Your task to perform on an android device: Search for sony triple a on newegg, select the first entry, add it to the cart, then select checkout. Image 0: 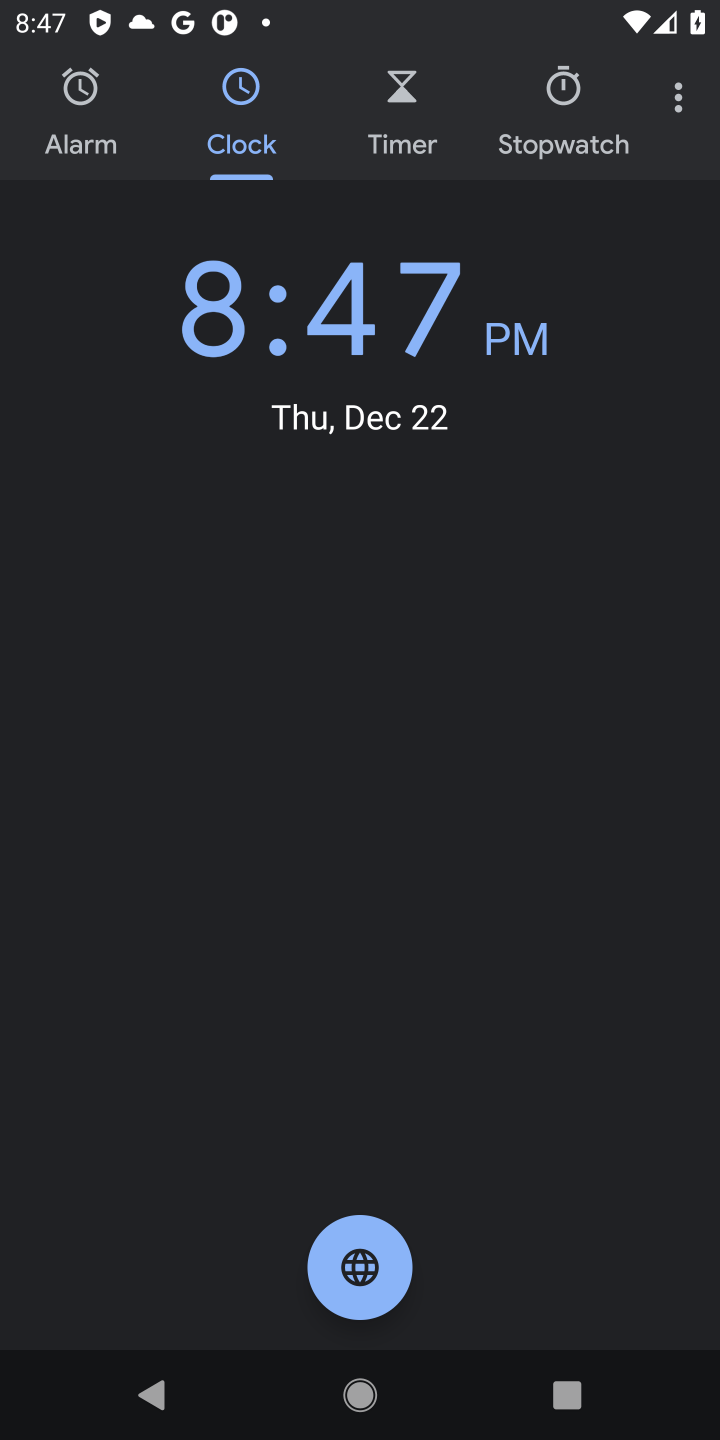
Step 0: press home button
Your task to perform on an android device: Search for sony triple a on newegg, select the first entry, add it to the cart, then select checkout. Image 1: 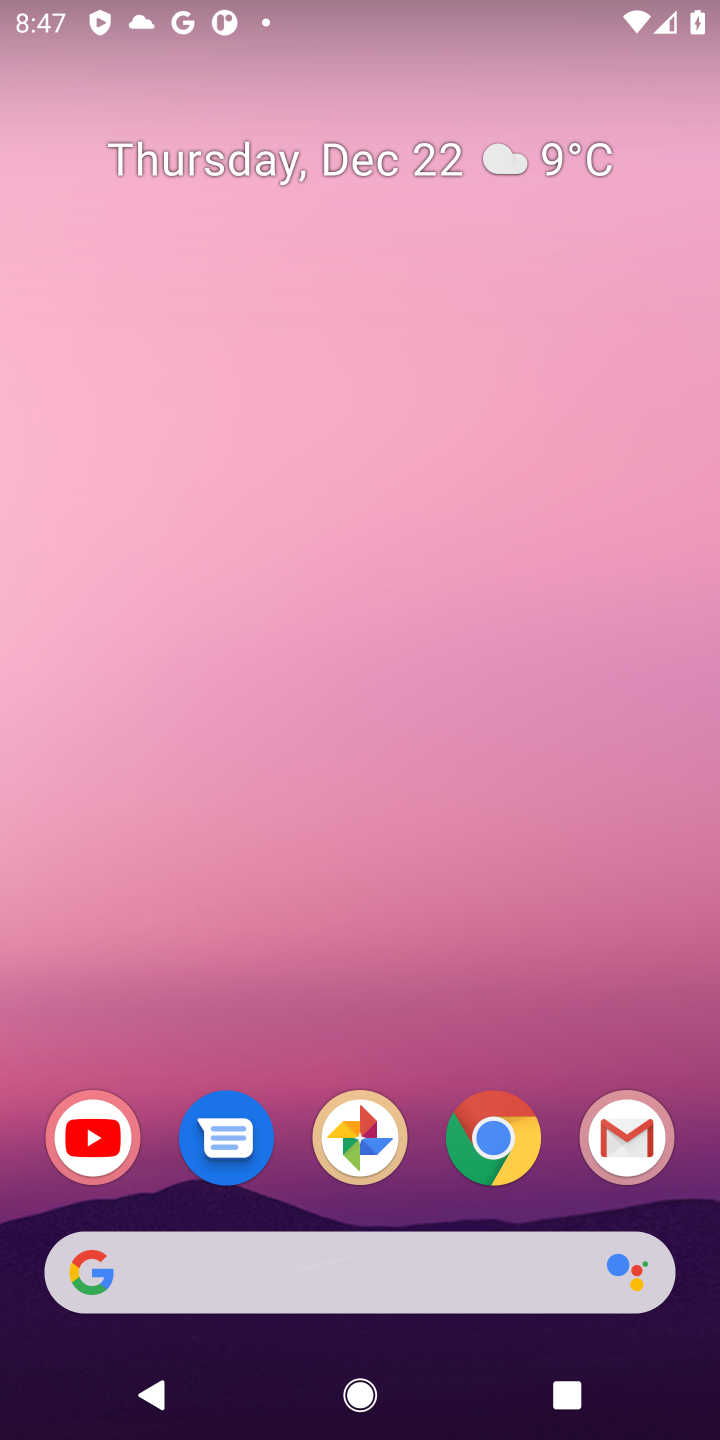
Step 1: click (478, 1134)
Your task to perform on an android device: Search for sony triple a on newegg, select the first entry, add it to the cart, then select checkout. Image 2: 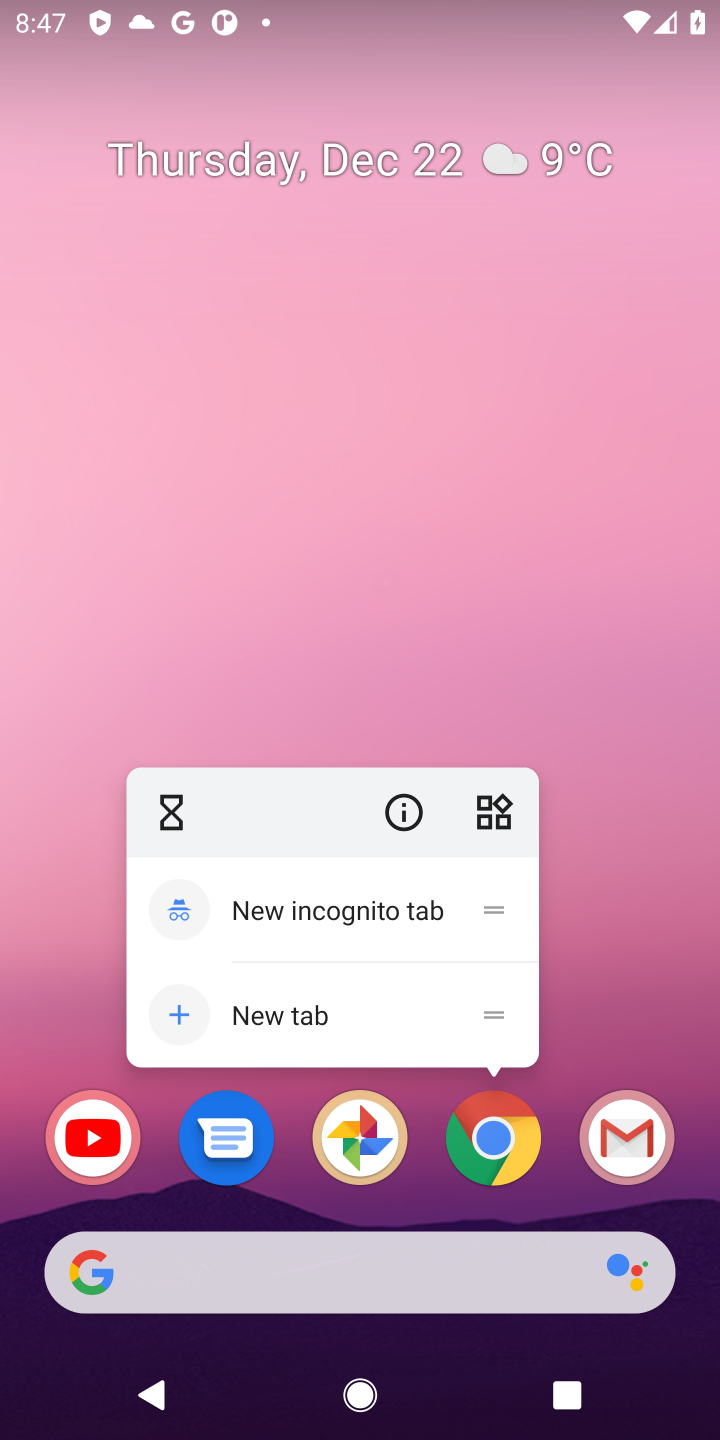
Step 2: click (503, 1177)
Your task to perform on an android device: Search for sony triple a on newegg, select the first entry, add it to the cart, then select checkout. Image 3: 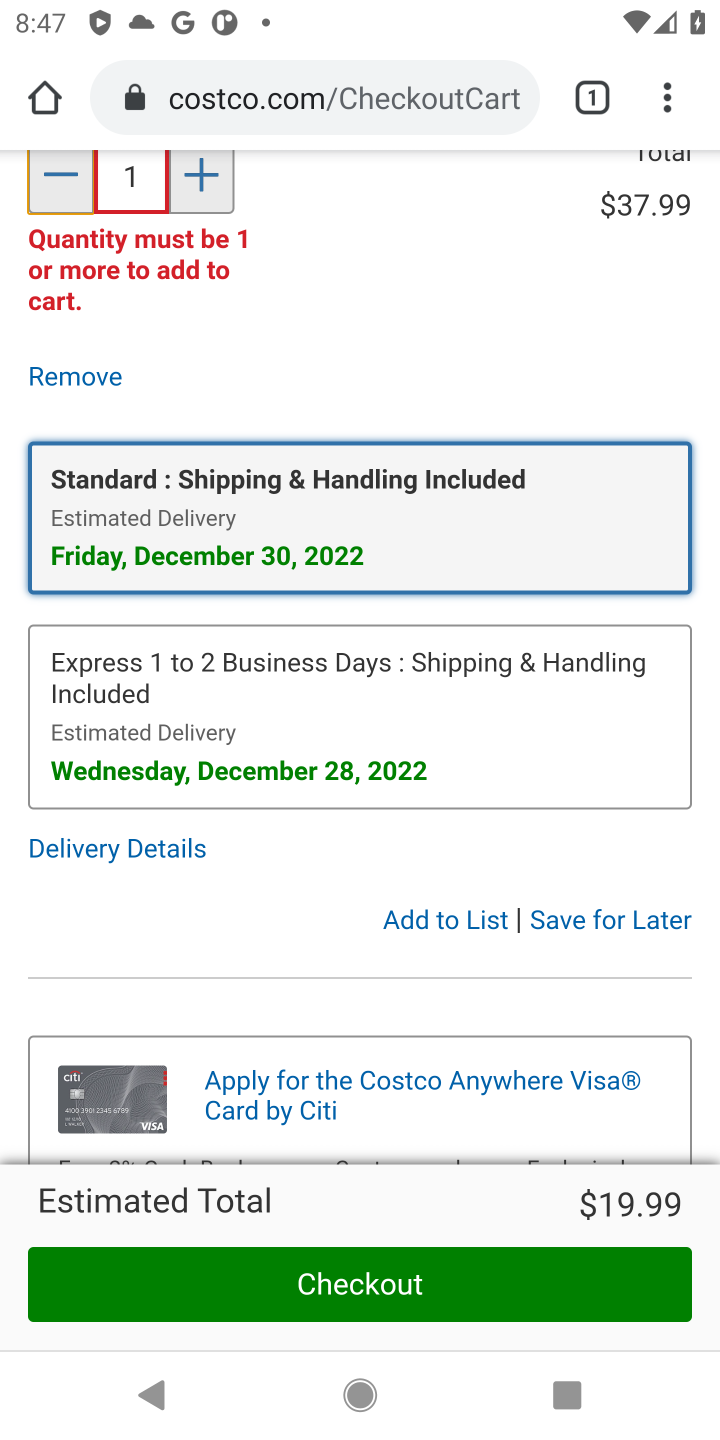
Step 3: click (277, 97)
Your task to perform on an android device: Search for sony triple a on newegg, select the first entry, add it to the cart, then select checkout. Image 4: 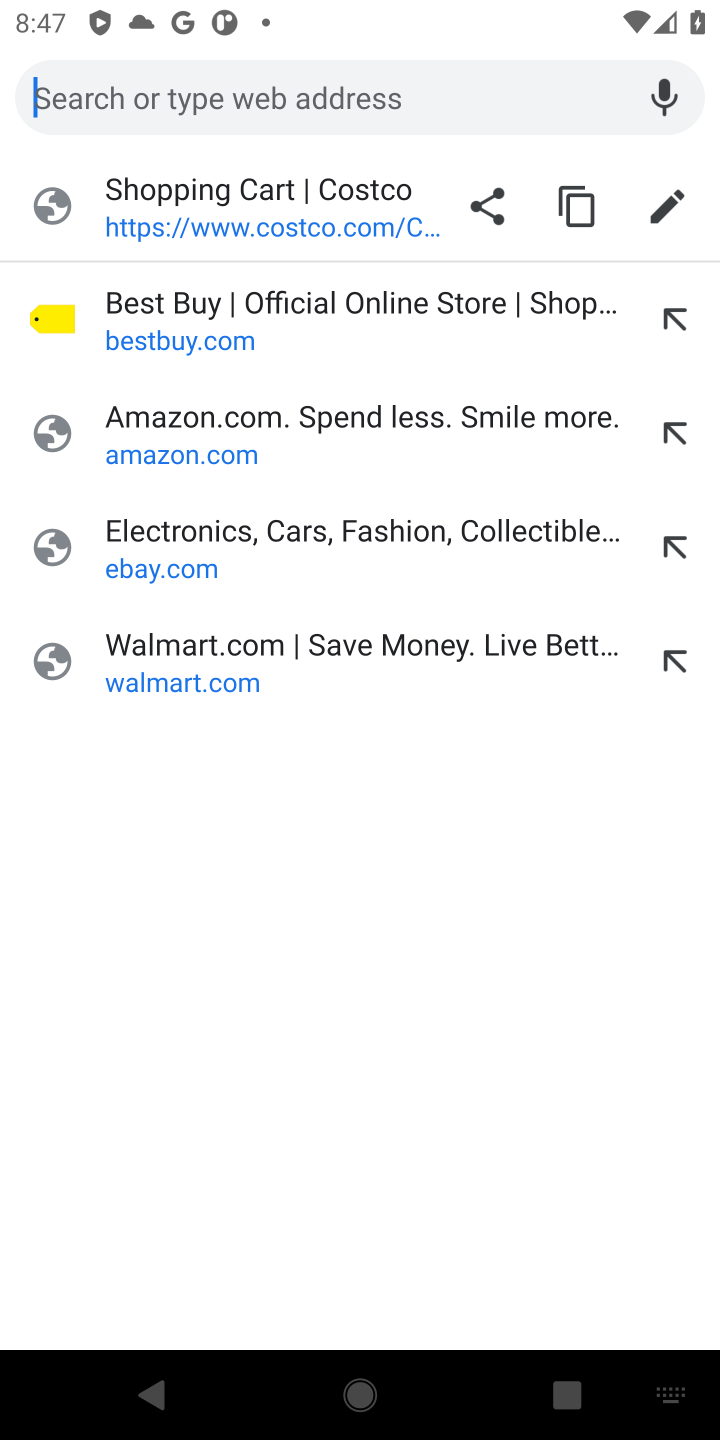
Step 4: type "newegg"
Your task to perform on an android device: Search for sony triple a on newegg, select the first entry, add it to the cart, then select checkout. Image 5: 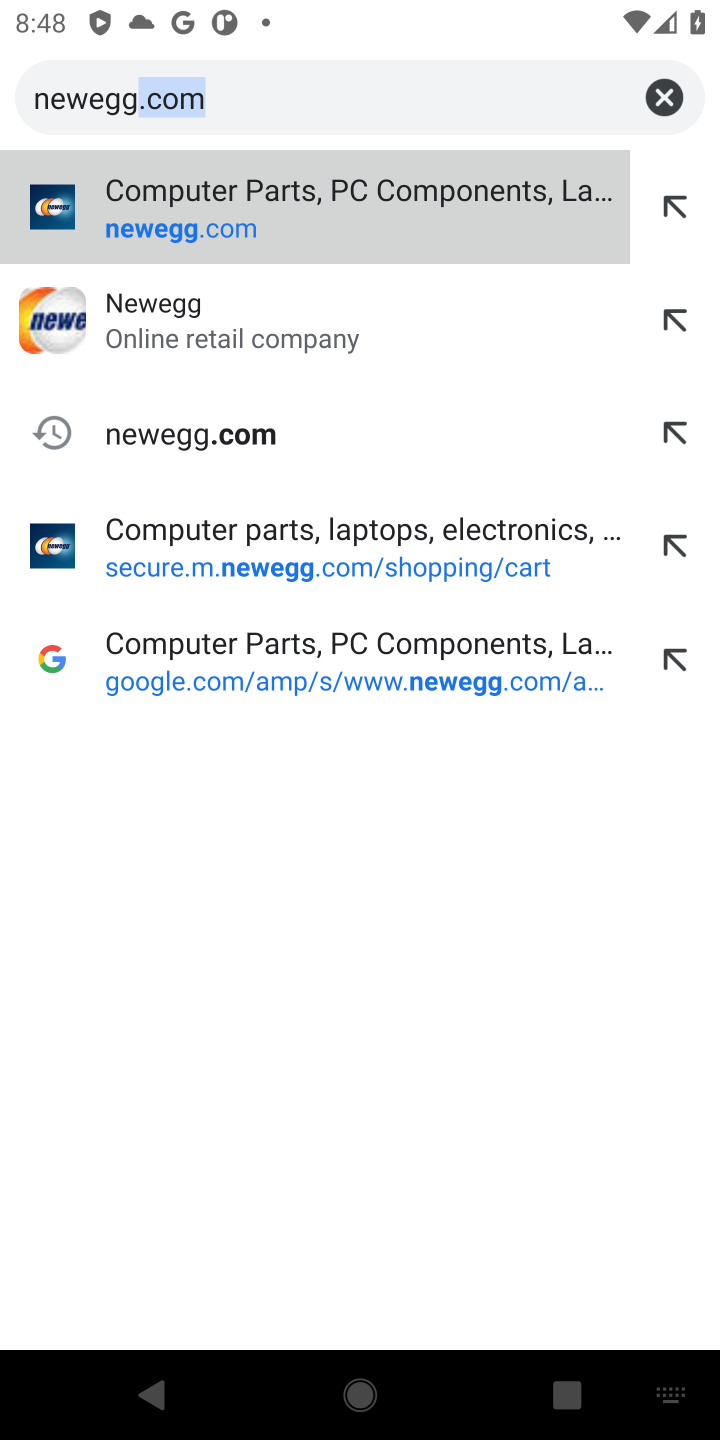
Step 5: click (253, 228)
Your task to perform on an android device: Search for sony triple a on newegg, select the first entry, add it to the cart, then select checkout. Image 6: 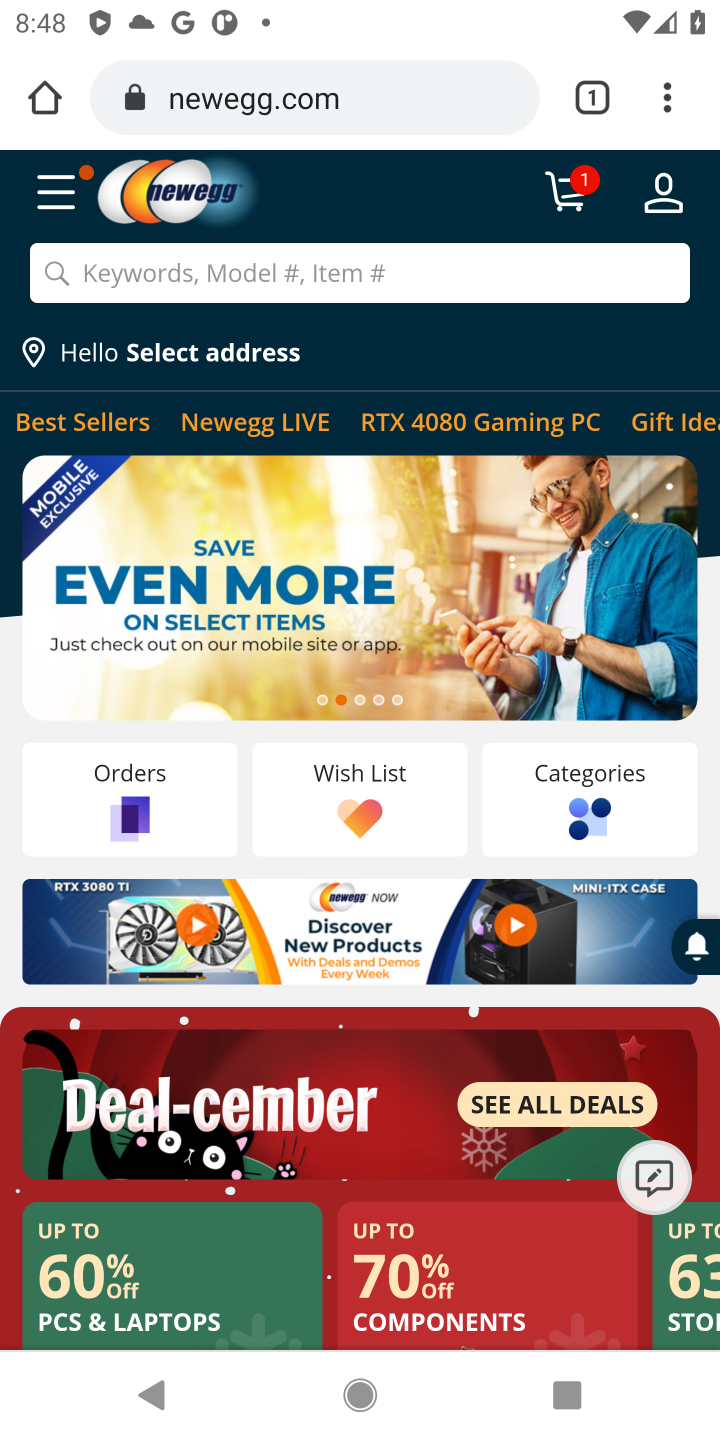
Step 6: click (374, 282)
Your task to perform on an android device: Search for sony triple a on newegg, select the first entry, add it to the cart, then select checkout. Image 7: 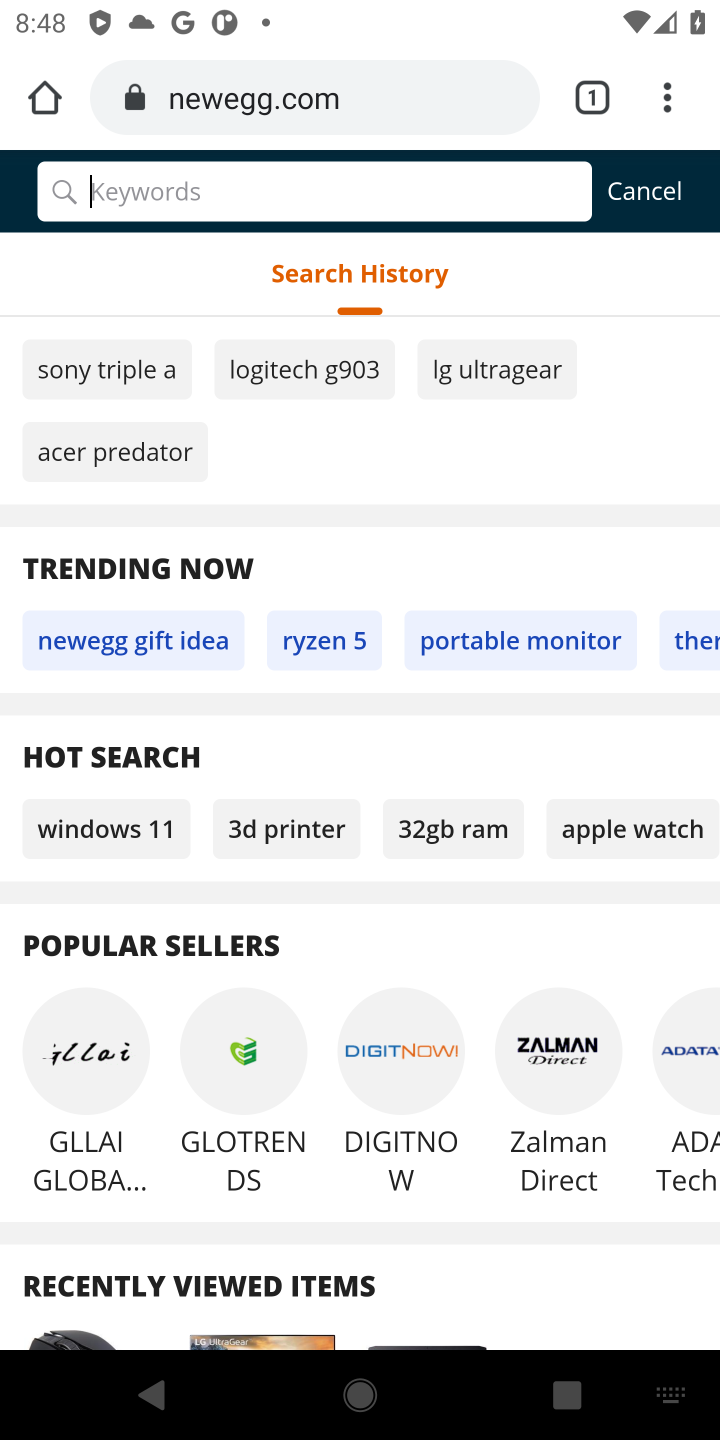
Step 7: type "sony triple a"
Your task to perform on an android device: Search for sony triple a on newegg, select the first entry, add it to the cart, then select checkout. Image 8: 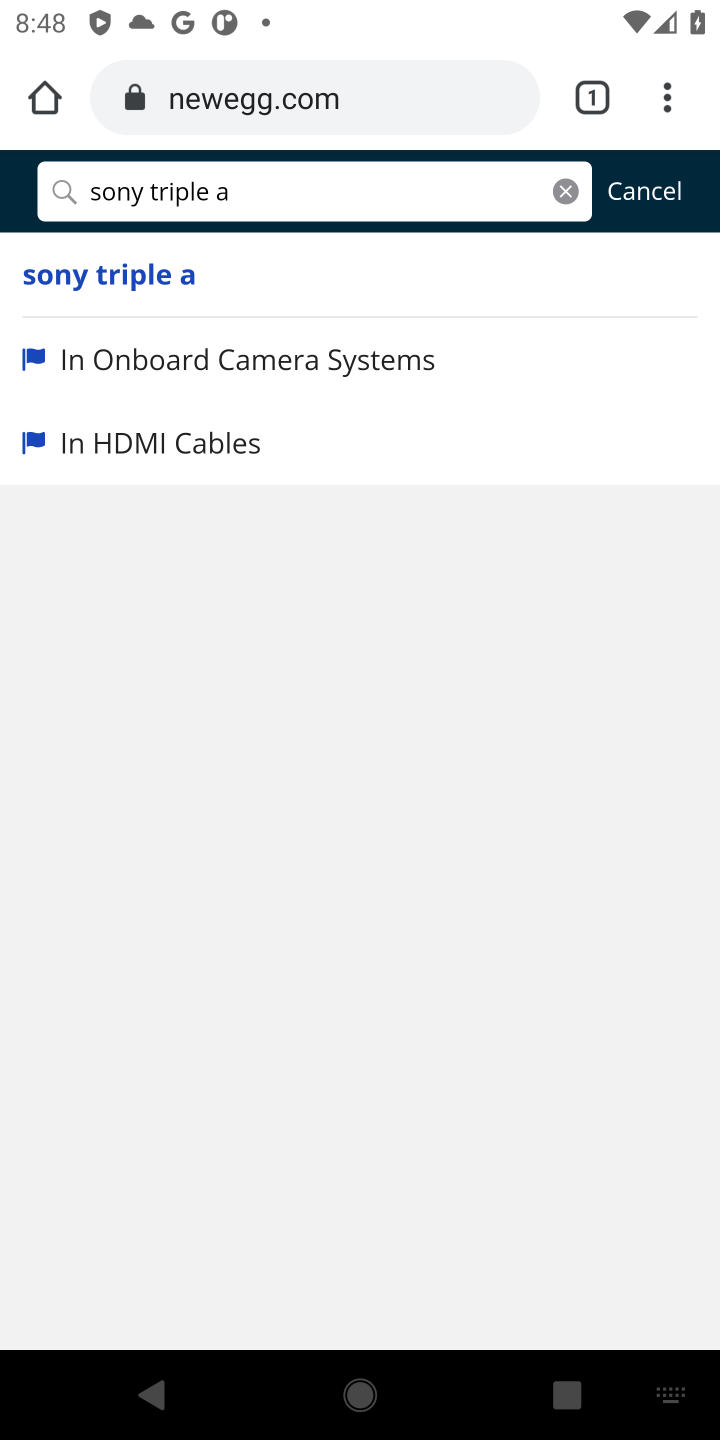
Step 8: press enter
Your task to perform on an android device: Search for sony triple a on newegg, select the first entry, add it to the cart, then select checkout. Image 9: 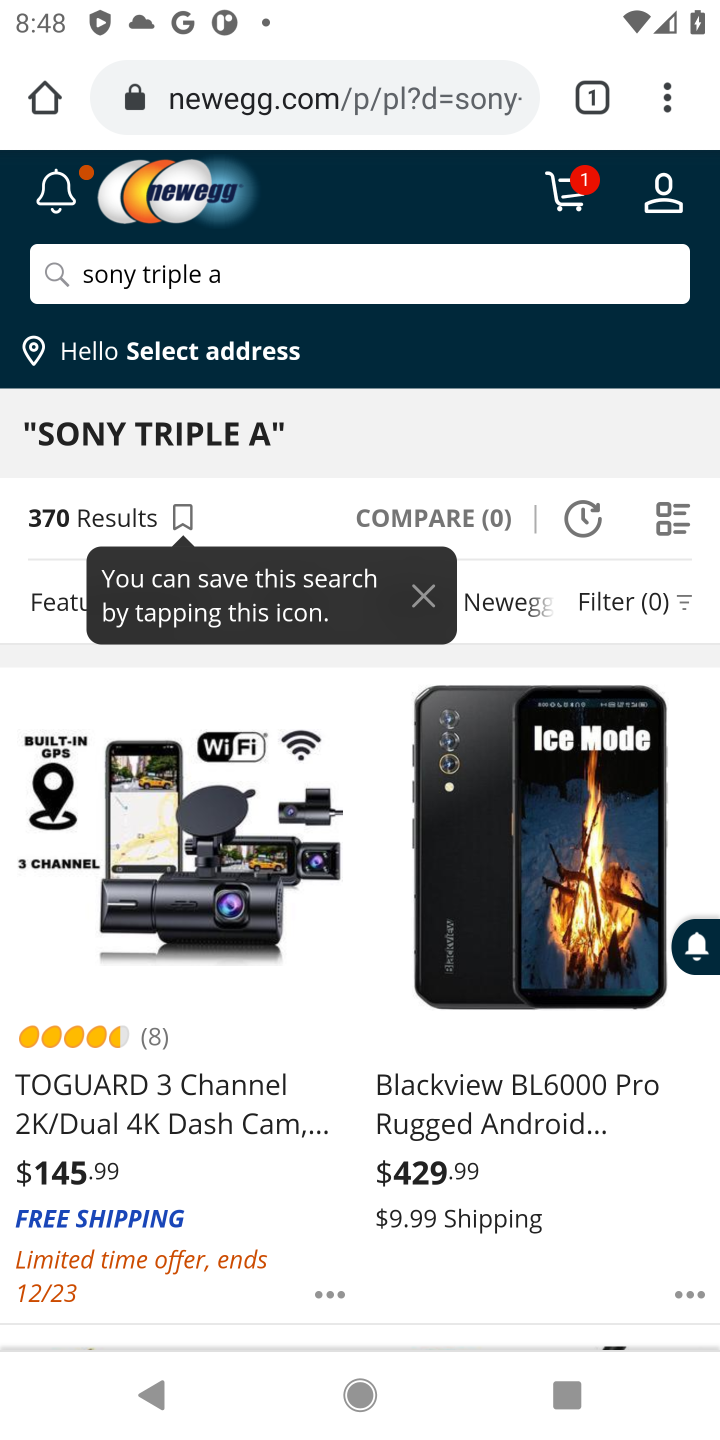
Step 9: task complete